Your task to perform on an android device: Show me the alarms in the clock app Image 0: 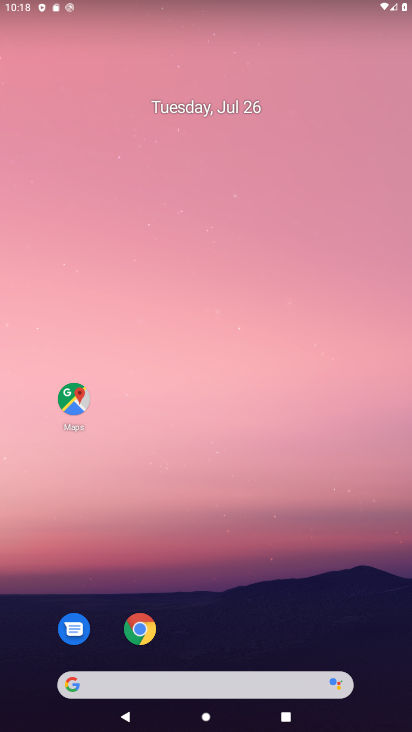
Step 0: drag from (293, 598) to (142, 26)
Your task to perform on an android device: Show me the alarms in the clock app Image 1: 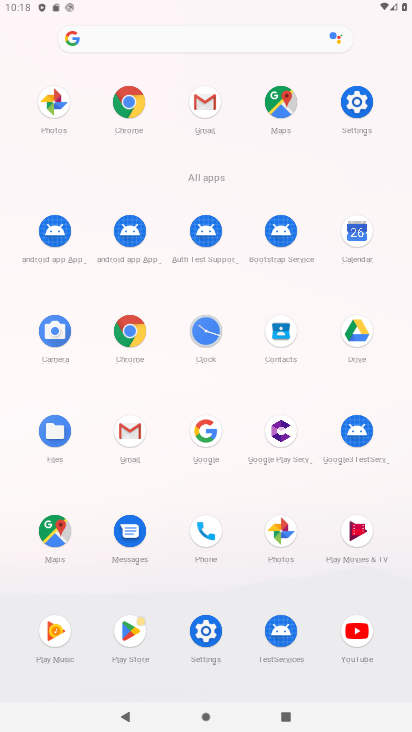
Step 1: click (204, 335)
Your task to perform on an android device: Show me the alarms in the clock app Image 2: 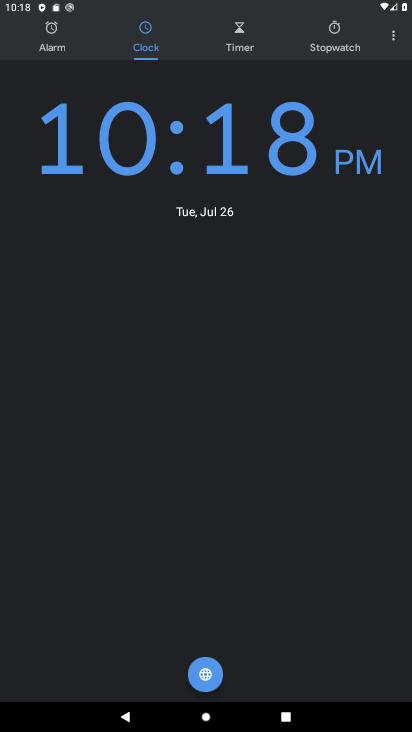
Step 2: click (49, 26)
Your task to perform on an android device: Show me the alarms in the clock app Image 3: 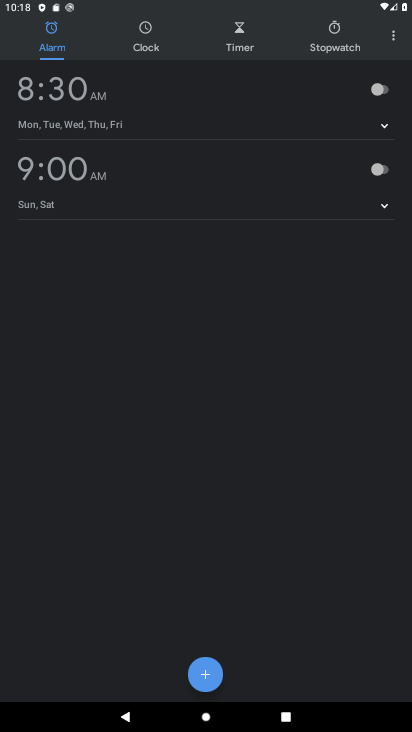
Step 3: task complete